Your task to perform on an android device: View the shopping cart on costco.com. Add jbl charge 4 to the cart on costco.com, then select checkout. Image 0: 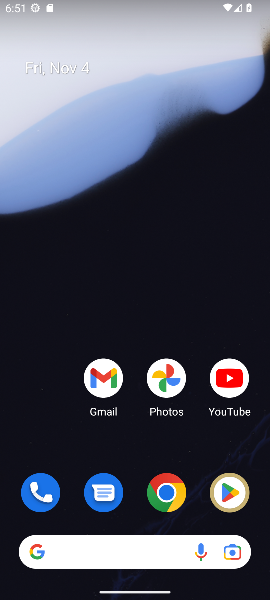
Step 0: drag from (132, 447) to (191, 23)
Your task to perform on an android device: View the shopping cart on costco.com. Add jbl charge 4 to the cart on costco.com, then select checkout. Image 1: 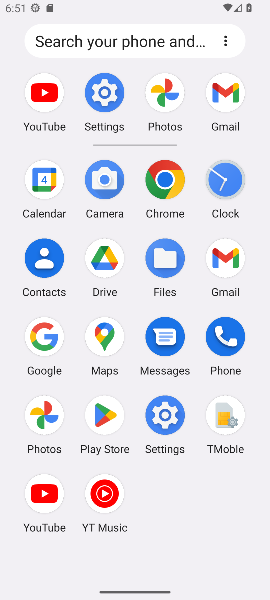
Step 1: click (165, 181)
Your task to perform on an android device: View the shopping cart on costco.com. Add jbl charge 4 to the cart on costco.com, then select checkout. Image 2: 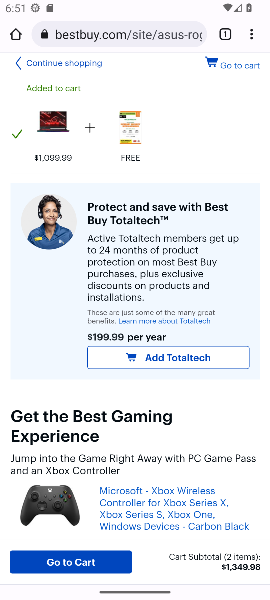
Step 2: click (134, 34)
Your task to perform on an android device: View the shopping cart on costco.com. Add jbl charge 4 to the cart on costco.com, then select checkout. Image 3: 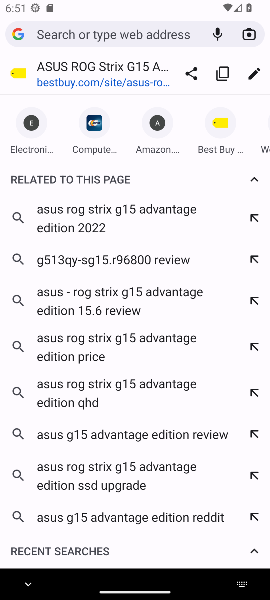
Step 3: type "costco.com"
Your task to perform on an android device: View the shopping cart on costco.com. Add jbl charge 4 to the cart on costco.com, then select checkout. Image 4: 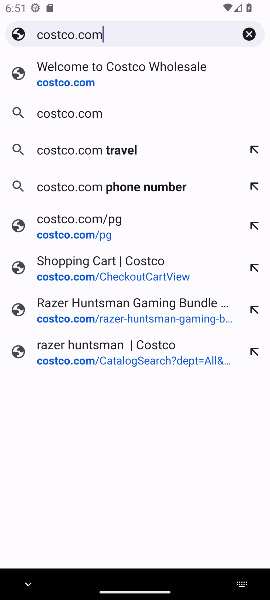
Step 4: press enter
Your task to perform on an android device: View the shopping cart on costco.com. Add jbl charge 4 to the cart on costco.com, then select checkout. Image 5: 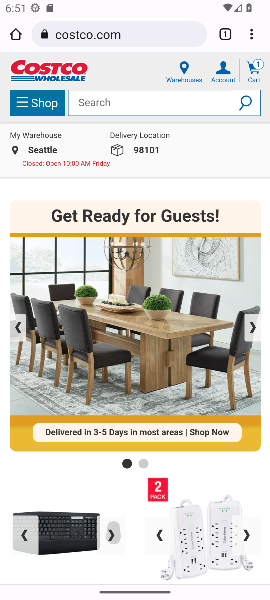
Step 5: click (249, 67)
Your task to perform on an android device: View the shopping cart on costco.com. Add jbl charge 4 to the cart on costco.com, then select checkout. Image 6: 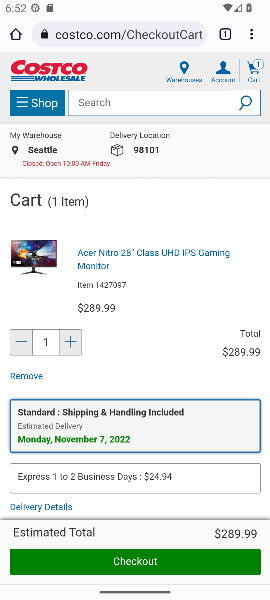
Step 6: click (188, 109)
Your task to perform on an android device: View the shopping cart on costco.com. Add jbl charge 4 to the cart on costco.com, then select checkout. Image 7: 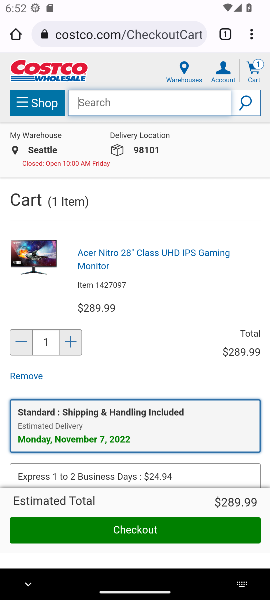
Step 7: type "jbl charge 4"
Your task to perform on an android device: View the shopping cart on costco.com. Add jbl charge 4 to the cart on costco.com, then select checkout. Image 8: 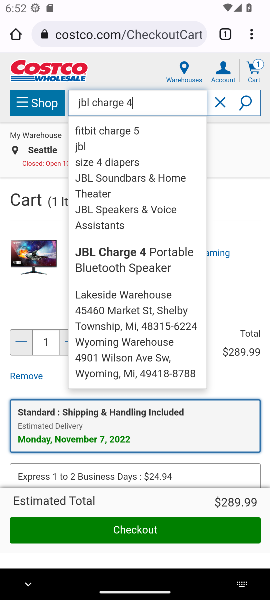
Step 8: press enter
Your task to perform on an android device: View the shopping cart on costco.com. Add jbl charge 4 to the cart on costco.com, then select checkout. Image 9: 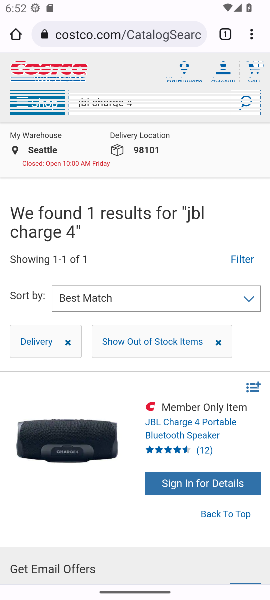
Step 9: click (192, 437)
Your task to perform on an android device: View the shopping cart on costco.com. Add jbl charge 4 to the cart on costco.com, then select checkout. Image 10: 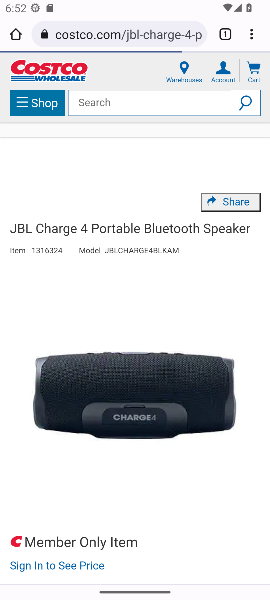
Step 10: task complete